Your task to perform on an android device: set the stopwatch Image 0: 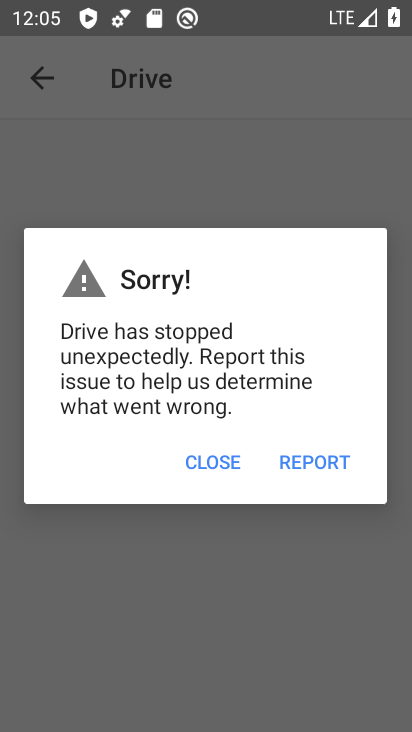
Step 0: press home button
Your task to perform on an android device: set the stopwatch Image 1: 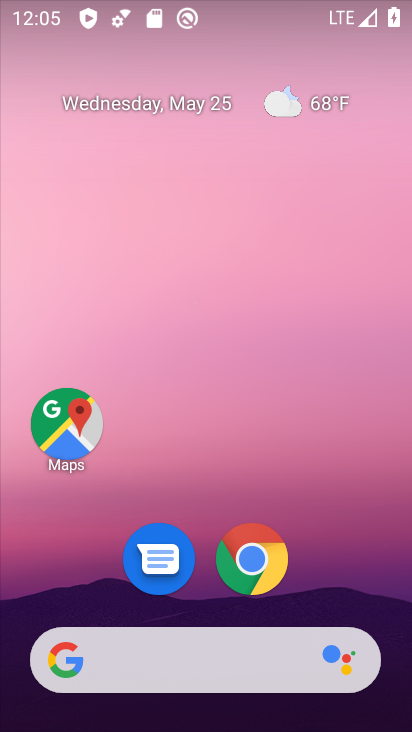
Step 1: drag from (344, 551) to (319, 47)
Your task to perform on an android device: set the stopwatch Image 2: 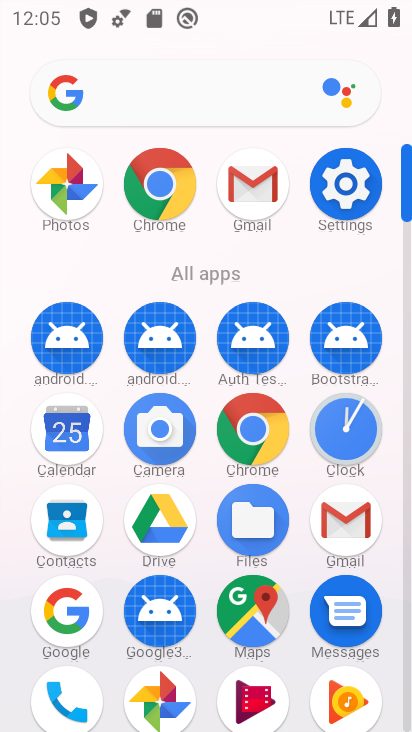
Step 2: click (406, 688)
Your task to perform on an android device: set the stopwatch Image 3: 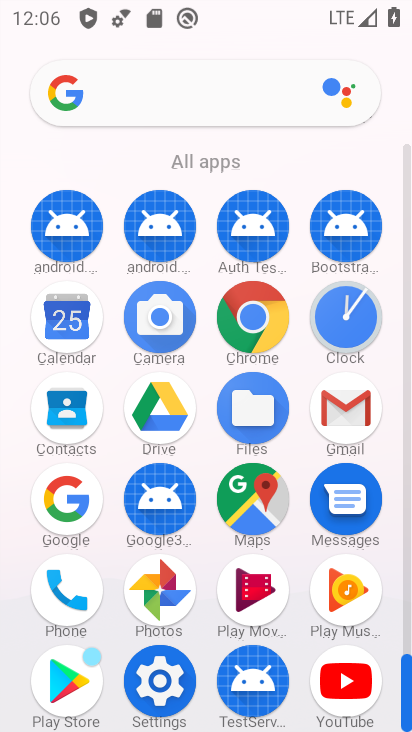
Step 3: click (342, 313)
Your task to perform on an android device: set the stopwatch Image 4: 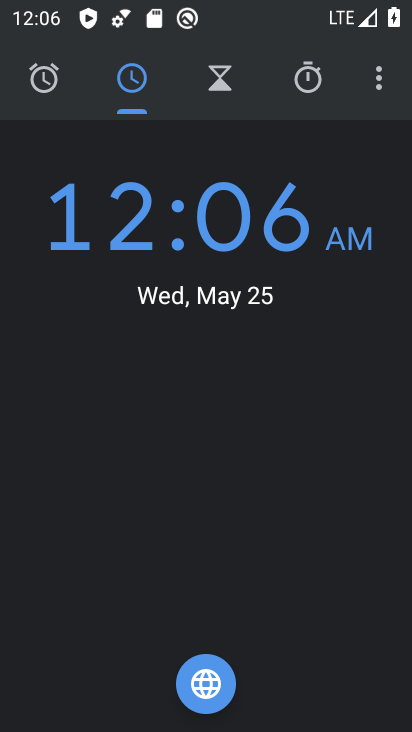
Step 4: click (307, 72)
Your task to perform on an android device: set the stopwatch Image 5: 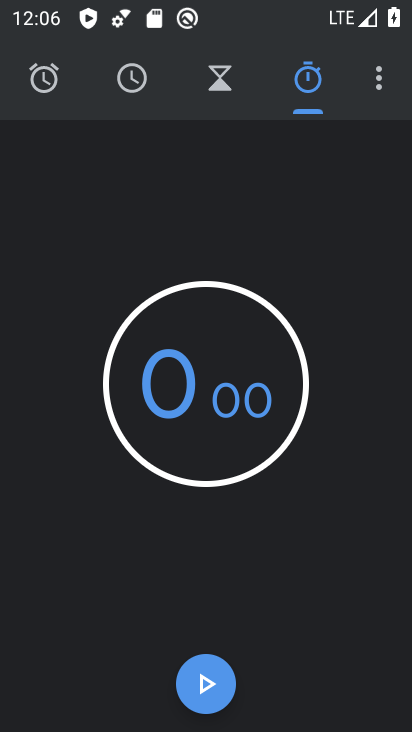
Step 5: task complete